Your task to perform on an android device: Go to Google Image 0: 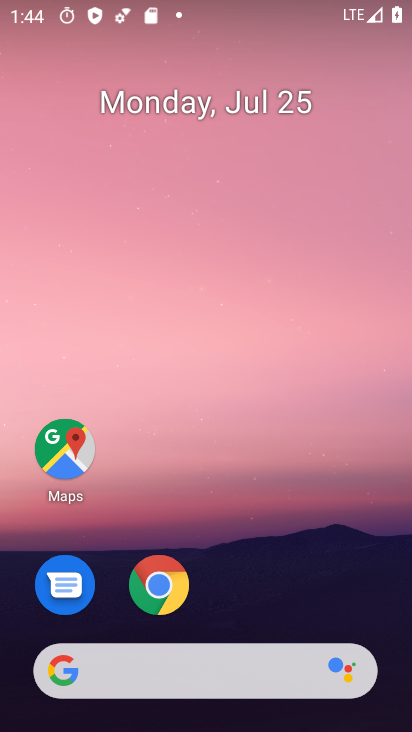
Step 0: drag from (212, 653) to (193, 195)
Your task to perform on an android device: Go to Google Image 1: 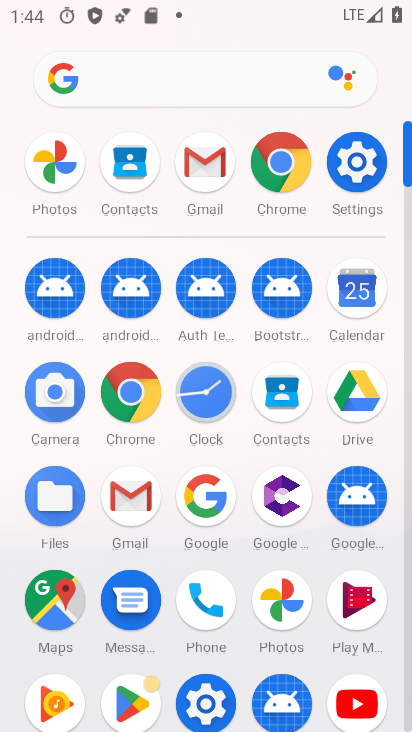
Step 1: click (207, 521)
Your task to perform on an android device: Go to Google Image 2: 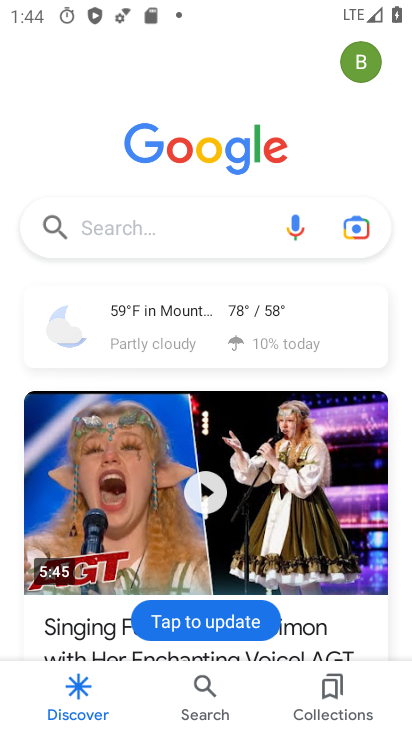
Step 2: task complete